Your task to perform on an android device: all mails in gmail Image 0: 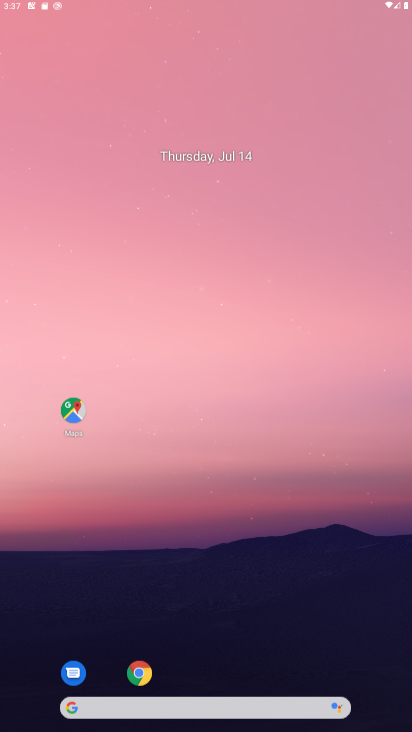
Step 0: press home button
Your task to perform on an android device: all mails in gmail Image 1: 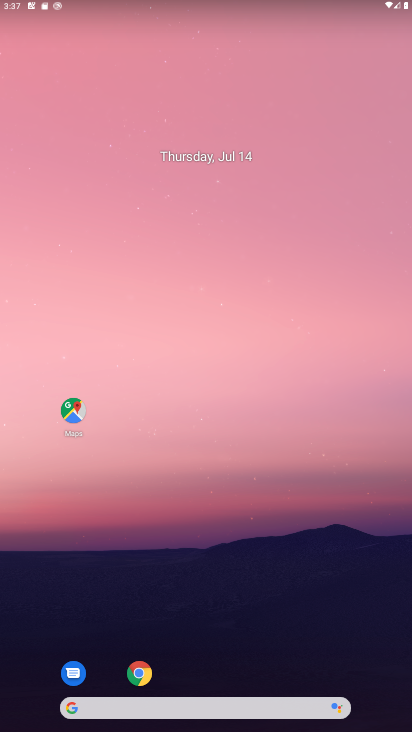
Step 1: drag from (227, 661) to (252, 1)
Your task to perform on an android device: all mails in gmail Image 2: 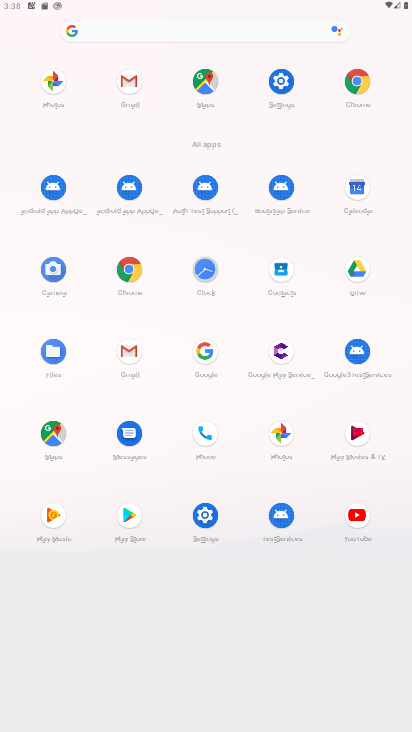
Step 2: click (126, 78)
Your task to perform on an android device: all mails in gmail Image 3: 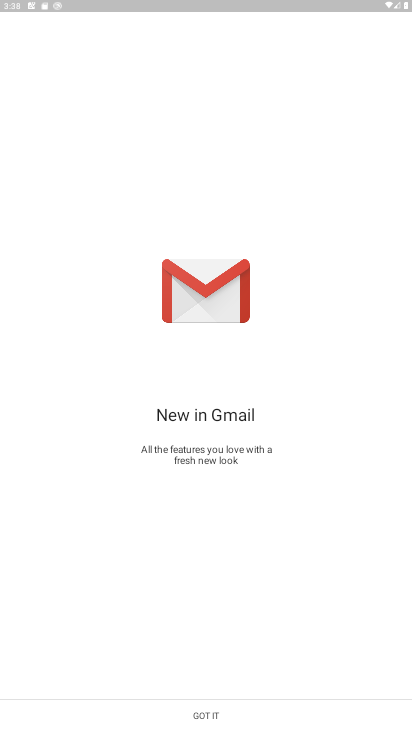
Step 3: click (205, 717)
Your task to perform on an android device: all mails in gmail Image 4: 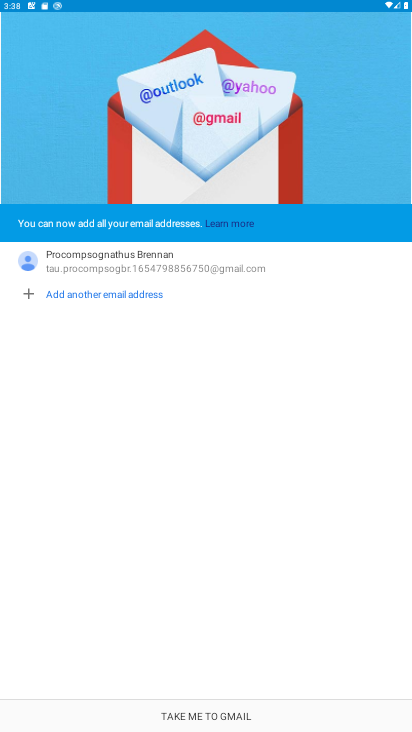
Step 4: click (205, 717)
Your task to perform on an android device: all mails in gmail Image 5: 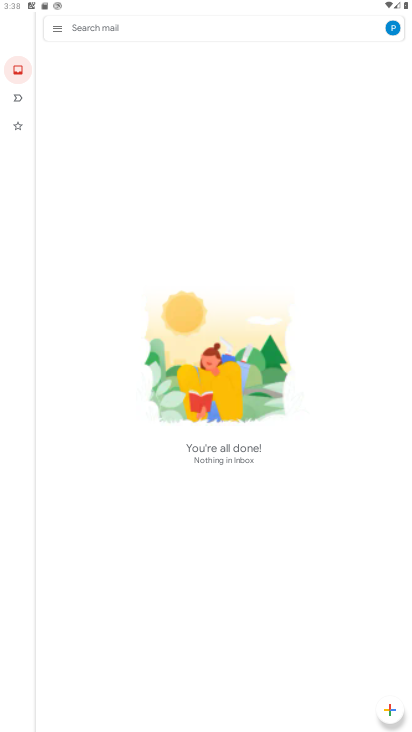
Step 5: click (54, 24)
Your task to perform on an android device: all mails in gmail Image 6: 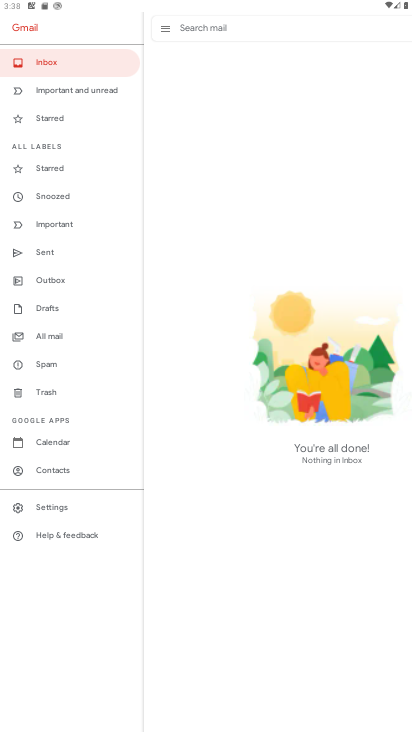
Step 6: click (56, 337)
Your task to perform on an android device: all mails in gmail Image 7: 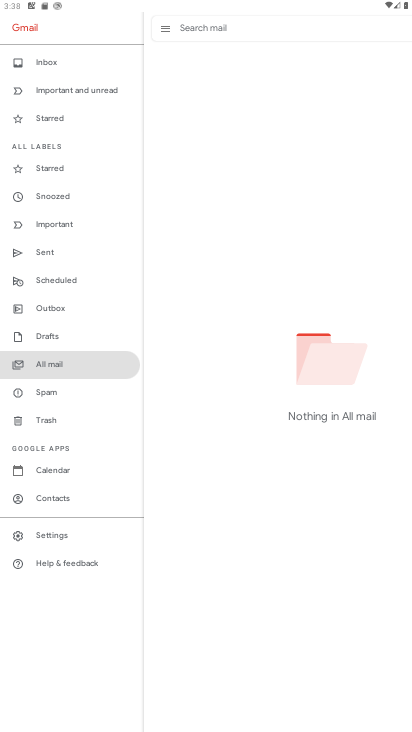
Step 7: task complete